Your task to perform on an android device: open the mobile data screen to see how much data has been used Image 0: 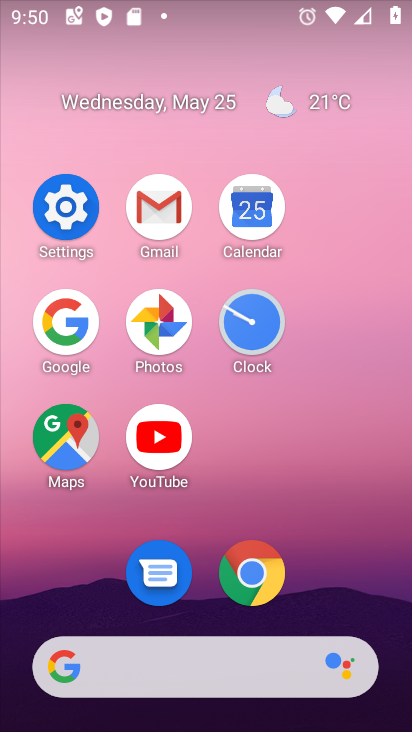
Step 0: click (62, 217)
Your task to perform on an android device: open the mobile data screen to see how much data has been used Image 1: 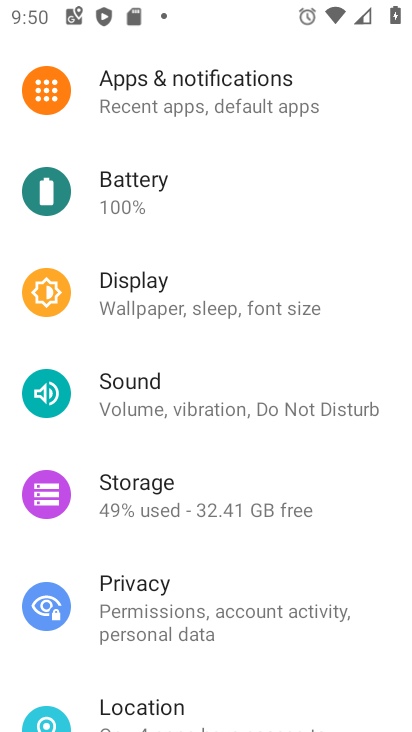
Step 1: drag from (288, 195) to (320, 605)
Your task to perform on an android device: open the mobile data screen to see how much data has been used Image 2: 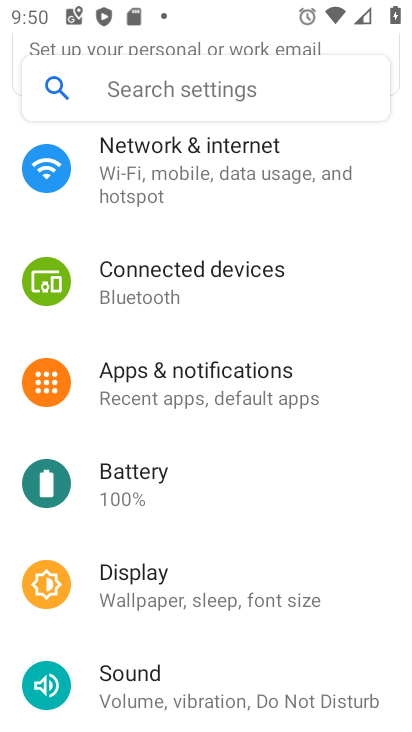
Step 2: click (281, 148)
Your task to perform on an android device: open the mobile data screen to see how much data has been used Image 3: 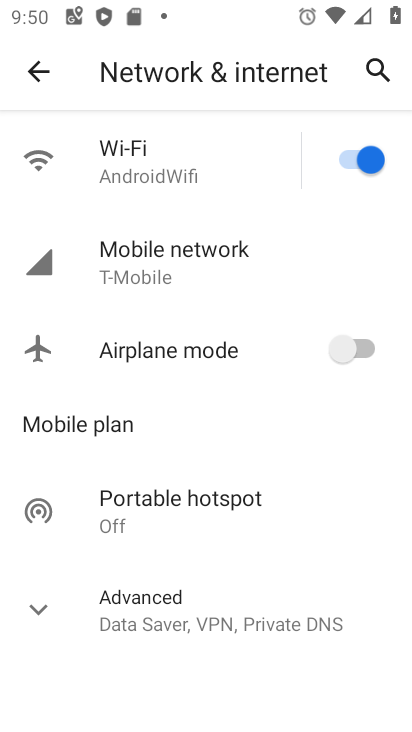
Step 3: click (220, 272)
Your task to perform on an android device: open the mobile data screen to see how much data has been used Image 4: 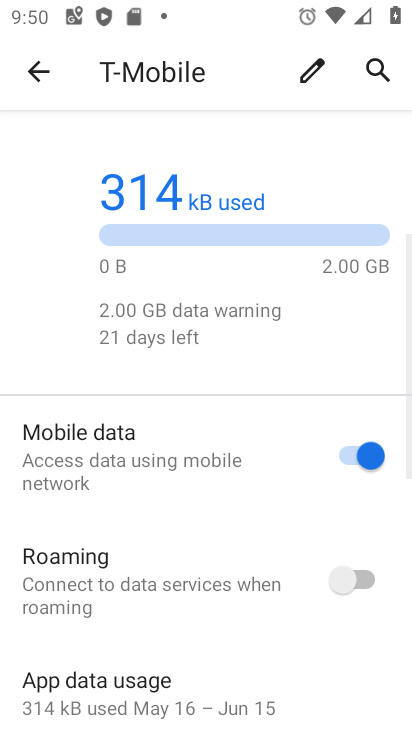
Step 4: task complete